Your task to perform on an android device: Search for seafood restaurants on Google Maps Image 0: 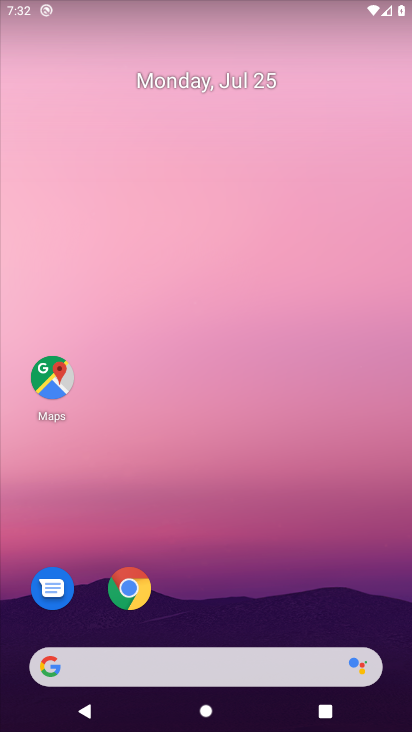
Step 0: click (257, 660)
Your task to perform on an android device: Search for seafood restaurants on Google Maps Image 1: 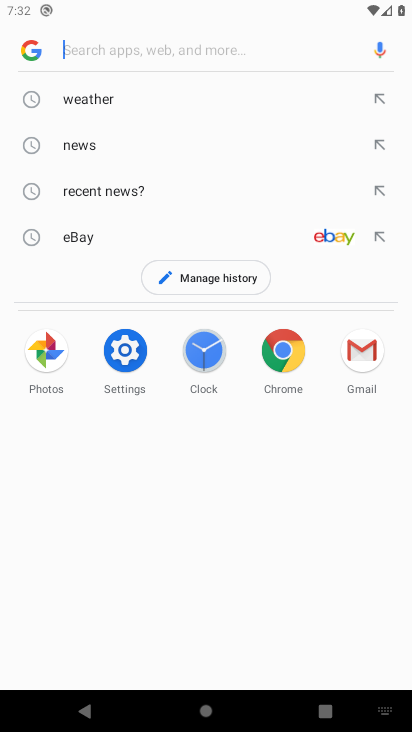
Step 1: type "seafood restaurants"
Your task to perform on an android device: Search for seafood restaurants on Google Maps Image 2: 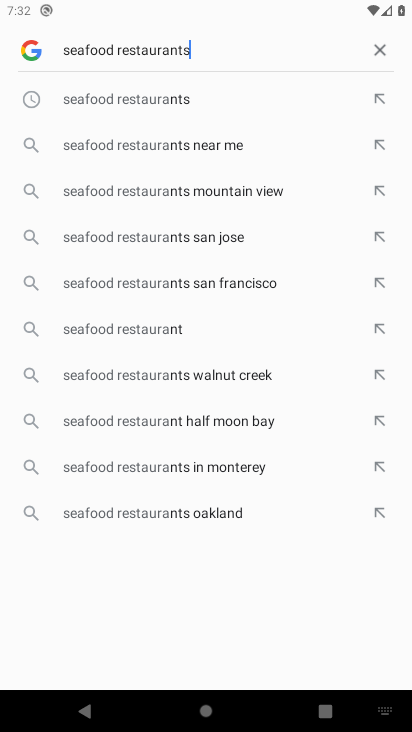
Step 2: press enter
Your task to perform on an android device: Search for seafood restaurants on Google Maps Image 3: 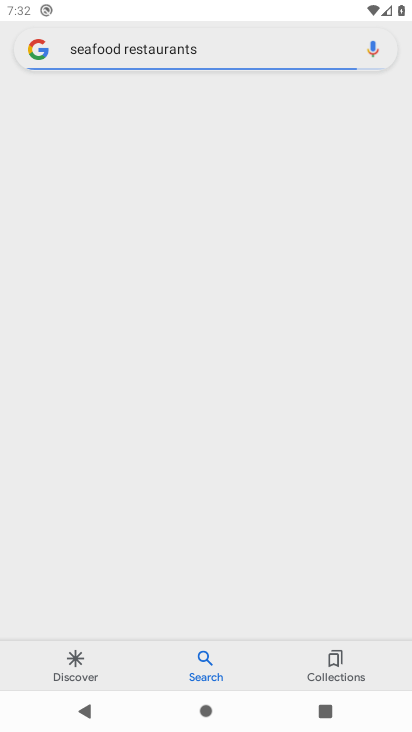
Step 3: task complete